Your task to perform on an android device: toggle notifications settings in the gmail app Image 0: 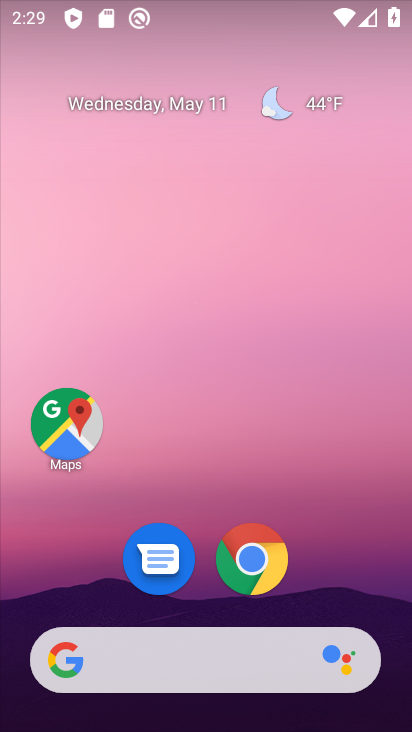
Step 0: drag from (326, 563) to (237, 126)
Your task to perform on an android device: toggle notifications settings in the gmail app Image 1: 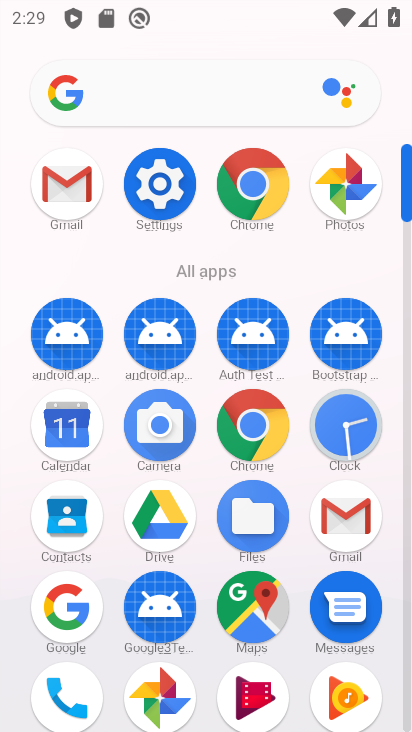
Step 1: click (346, 520)
Your task to perform on an android device: toggle notifications settings in the gmail app Image 2: 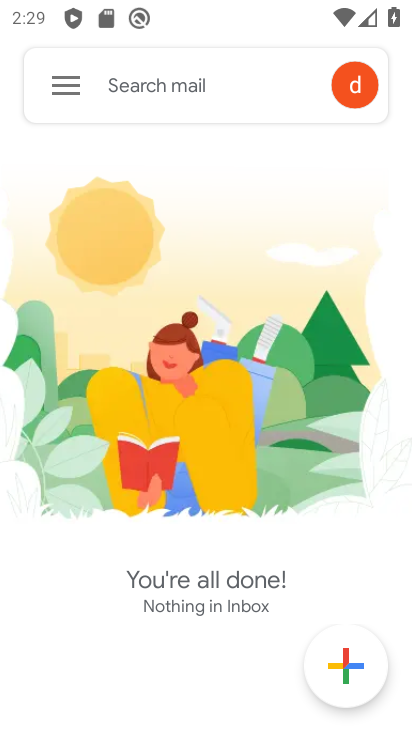
Step 2: click (69, 78)
Your task to perform on an android device: toggle notifications settings in the gmail app Image 3: 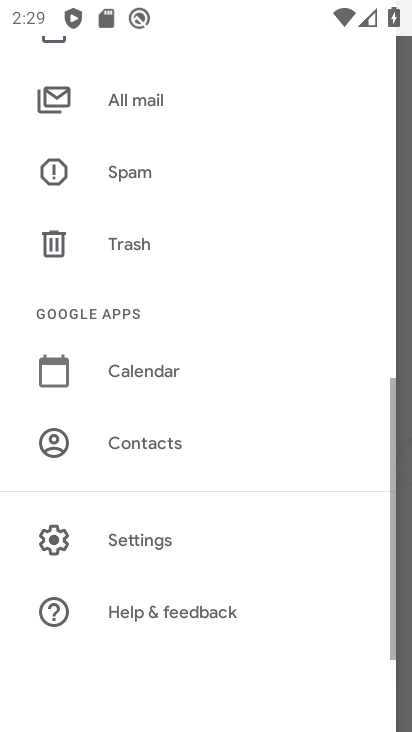
Step 3: click (159, 541)
Your task to perform on an android device: toggle notifications settings in the gmail app Image 4: 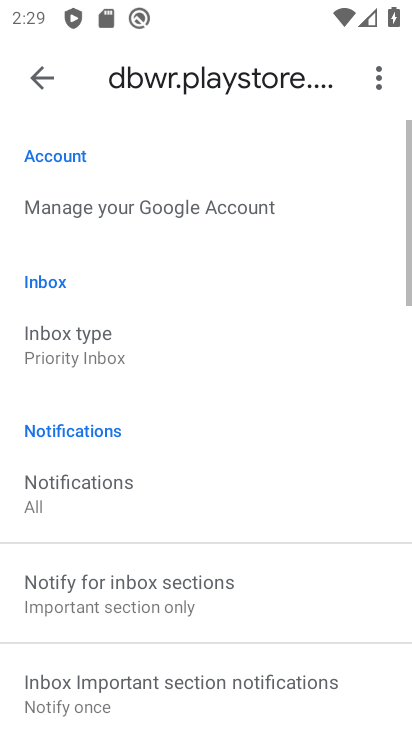
Step 4: click (143, 491)
Your task to perform on an android device: toggle notifications settings in the gmail app Image 5: 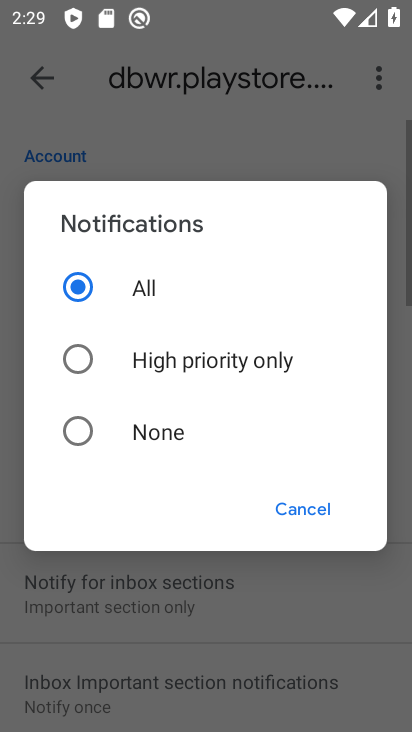
Step 5: click (179, 427)
Your task to perform on an android device: toggle notifications settings in the gmail app Image 6: 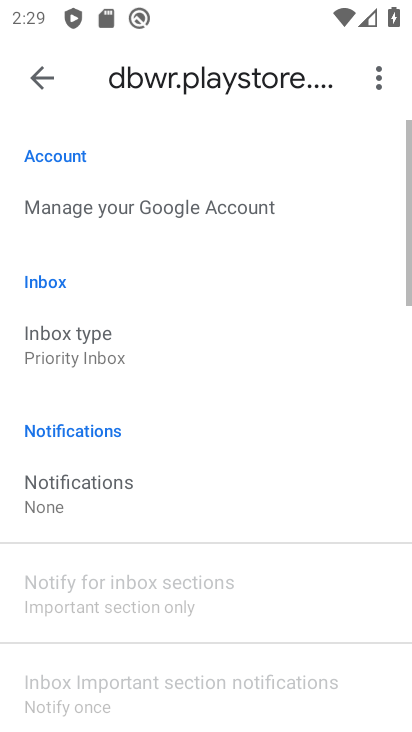
Step 6: task complete